Your task to perform on an android device: turn on translation in the chrome app Image 0: 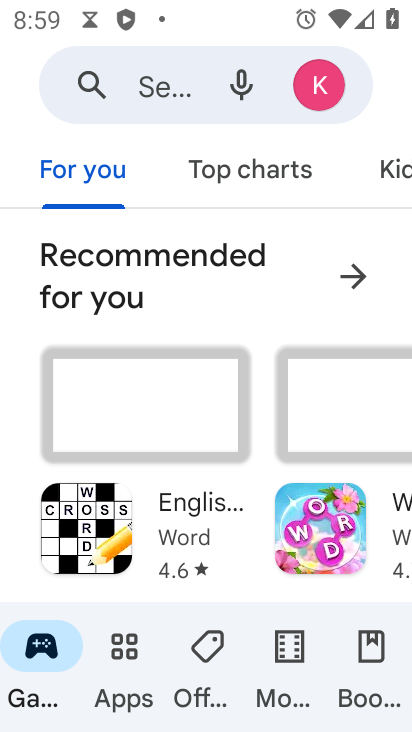
Step 0: press home button
Your task to perform on an android device: turn on translation in the chrome app Image 1: 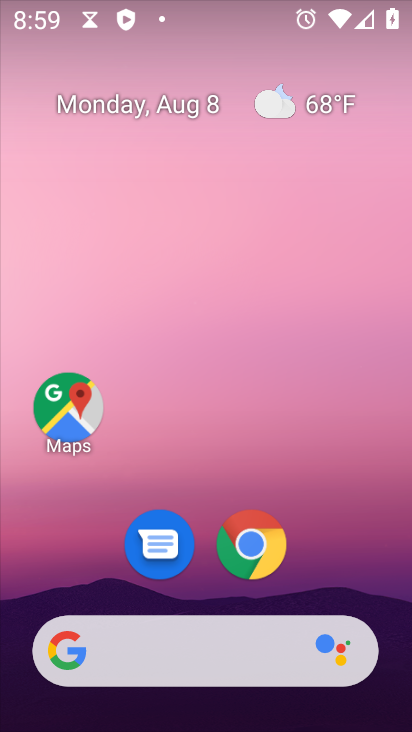
Step 1: click (249, 534)
Your task to perform on an android device: turn on translation in the chrome app Image 2: 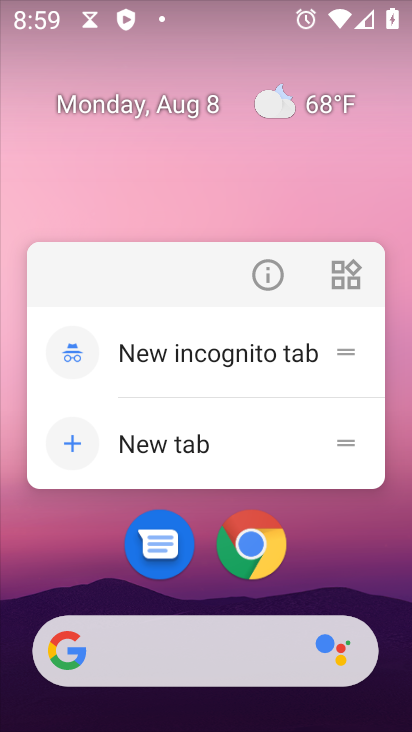
Step 2: click (356, 556)
Your task to perform on an android device: turn on translation in the chrome app Image 3: 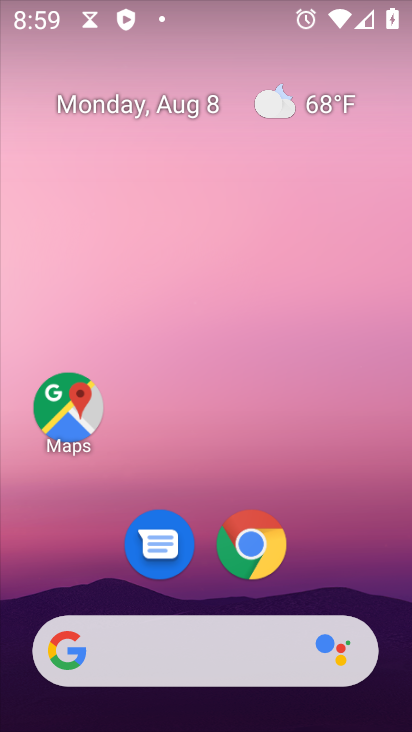
Step 3: drag from (316, 528) to (321, 155)
Your task to perform on an android device: turn on translation in the chrome app Image 4: 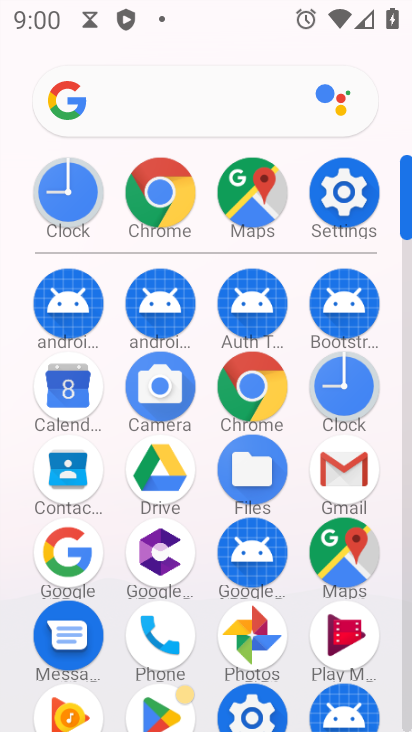
Step 4: click (250, 379)
Your task to perform on an android device: turn on translation in the chrome app Image 5: 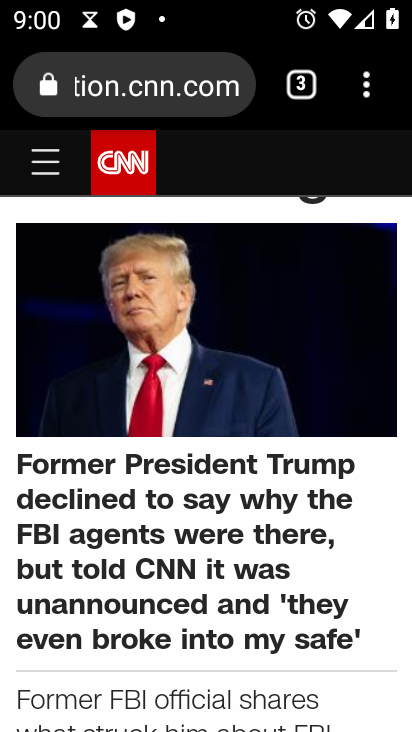
Step 5: click (367, 89)
Your task to perform on an android device: turn on translation in the chrome app Image 6: 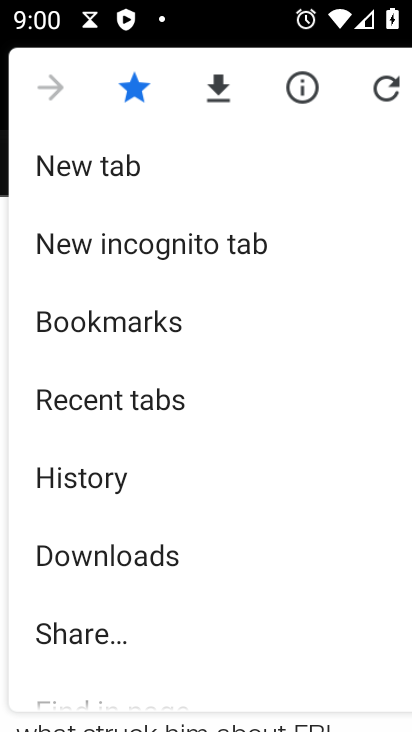
Step 6: drag from (186, 667) to (175, 329)
Your task to perform on an android device: turn on translation in the chrome app Image 7: 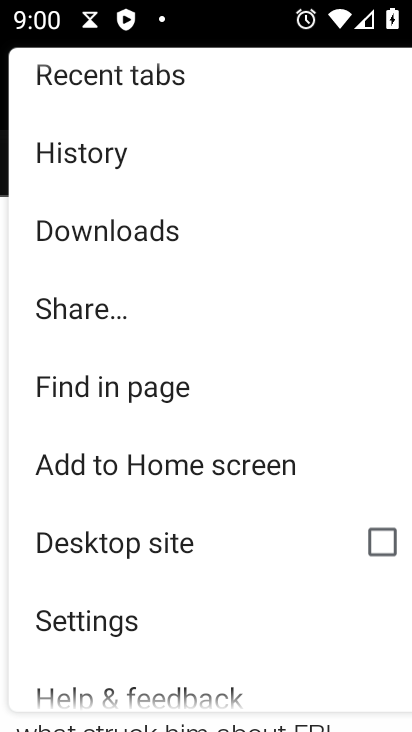
Step 7: click (157, 620)
Your task to perform on an android device: turn on translation in the chrome app Image 8: 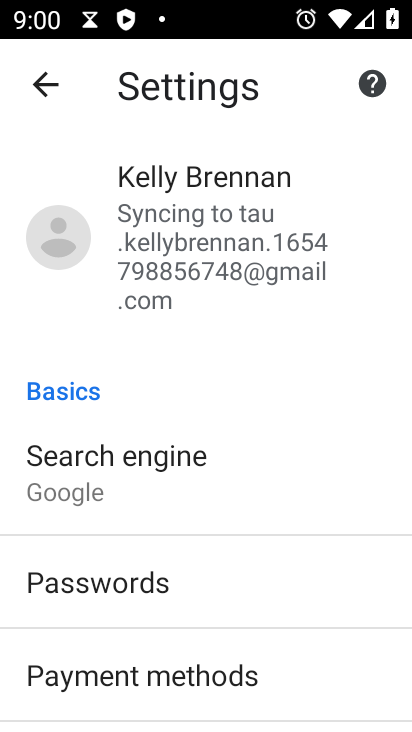
Step 8: drag from (235, 648) to (270, 325)
Your task to perform on an android device: turn on translation in the chrome app Image 9: 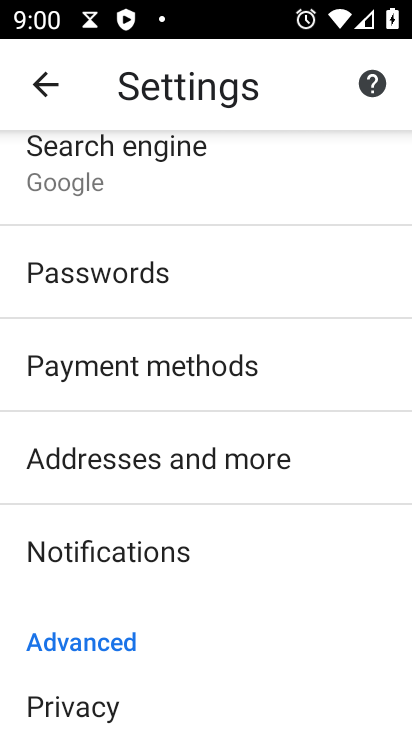
Step 9: drag from (166, 664) to (183, 259)
Your task to perform on an android device: turn on translation in the chrome app Image 10: 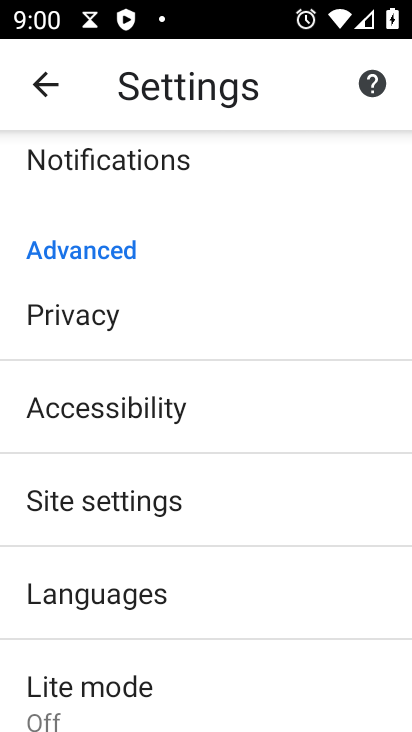
Step 10: click (179, 590)
Your task to perform on an android device: turn on translation in the chrome app Image 11: 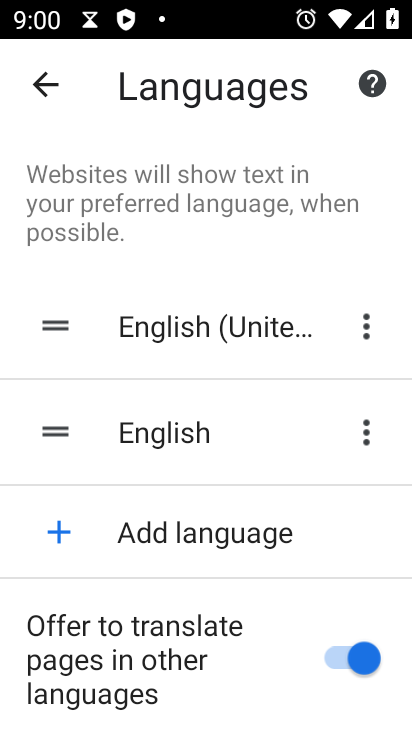
Step 11: task complete